Your task to perform on an android device: turn notification dots on Image 0: 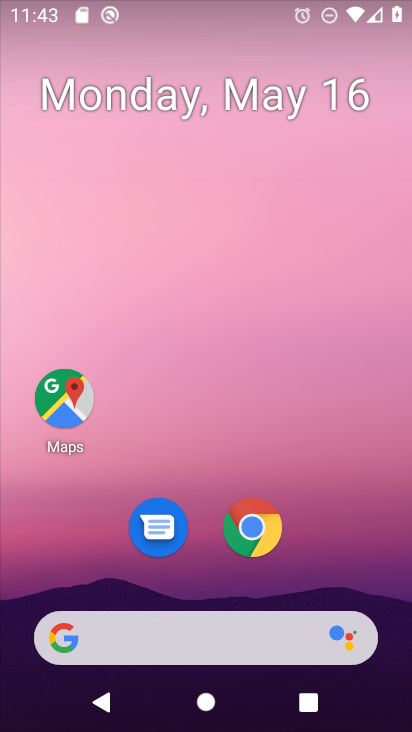
Step 0: drag from (365, 558) to (361, 2)
Your task to perform on an android device: turn notification dots on Image 1: 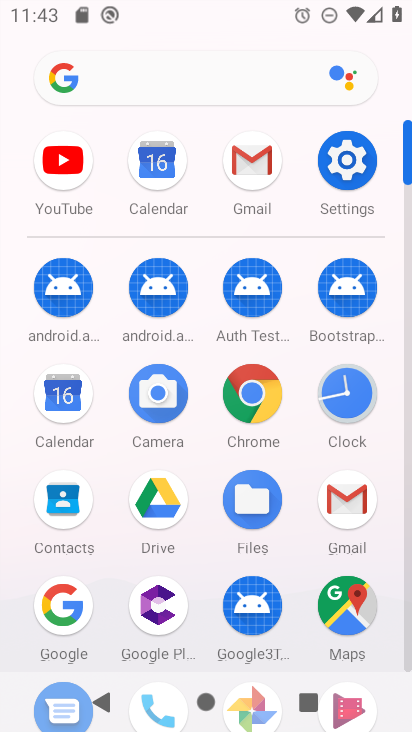
Step 1: click (339, 173)
Your task to perform on an android device: turn notification dots on Image 2: 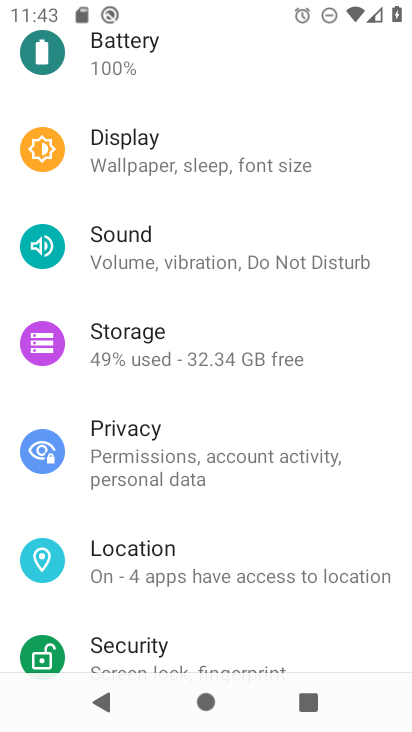
Step 2: drag from (287, 252) to (288, 595)
Your task to perform on an android device: turn notification dots on Image 3: 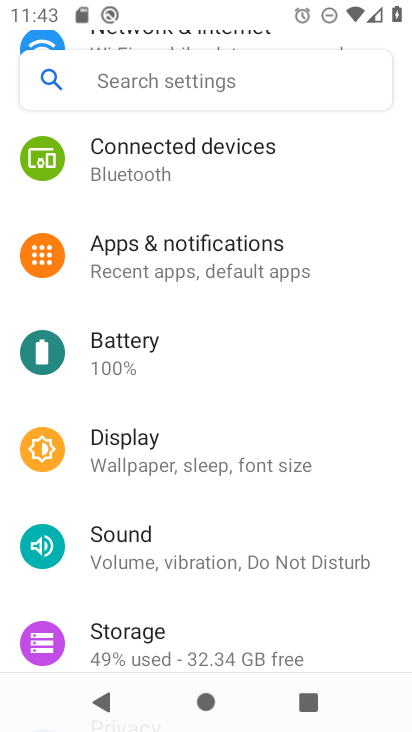
Step 3: click (194, 264)
Your task to perform on an android device: turn notification dots on Image 4: 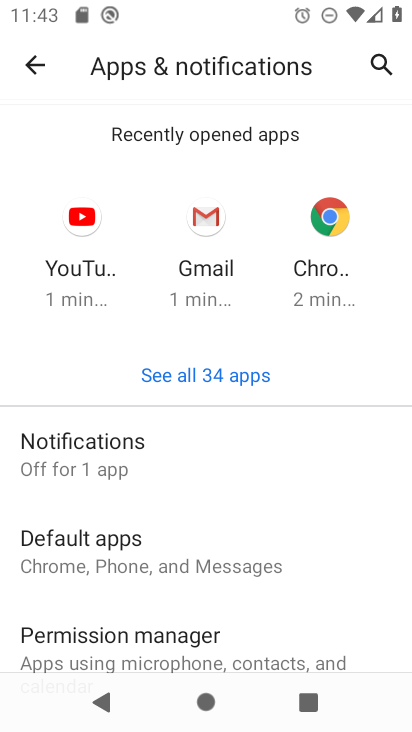
Step 4: click (80, 449)
Your task to perform on an android device: turn notification dots on Image 5: 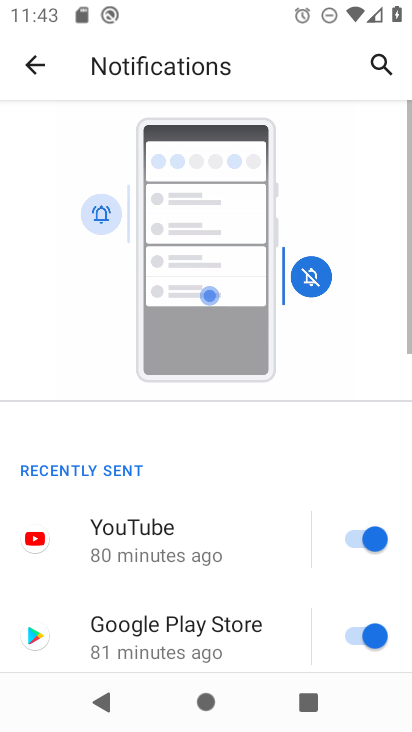
Step 5: drag from (184, 553) to (196, 74)
Your task to perform on an android device: turn notification dots on Image 6: 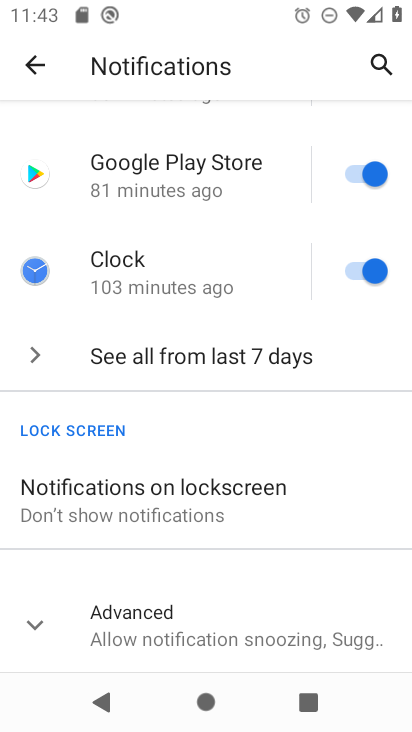
Step 6: click (27, 623)
Your task to perform on an android device: turn notification dots on Image 7: 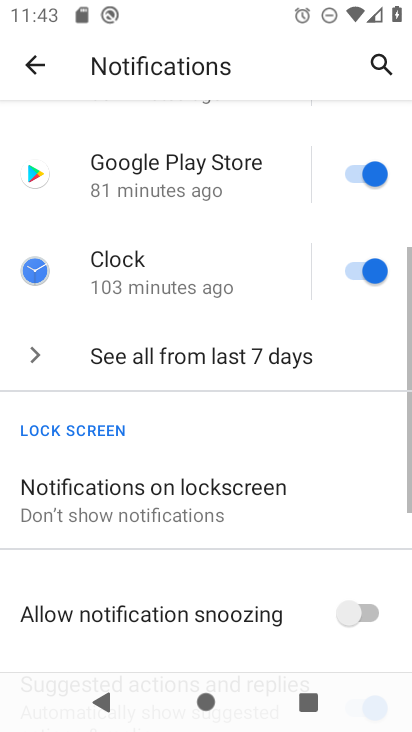
Step 7: drag from (154, 592) to (188, 207)
Your task to perform on an android device: turn notification dots on Image 8: 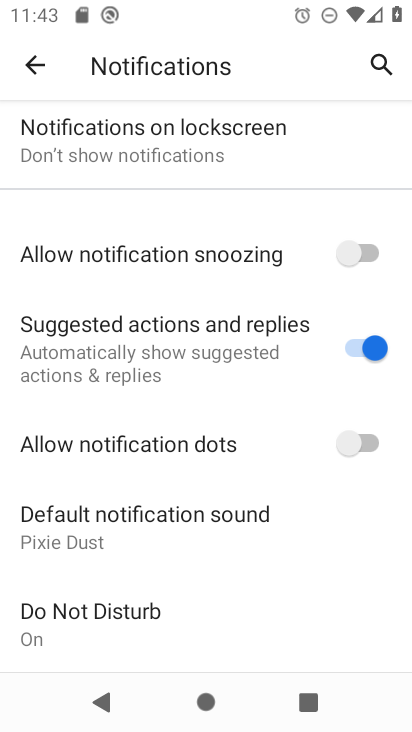
Step 8: click (343, 439)
Your task to perform on an android device: turn notification dots on Image 9: 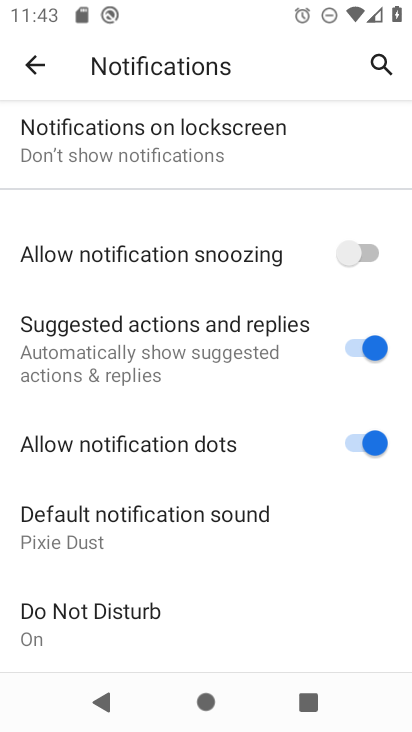
Step 9: task complete